Your task to perform on an android device: Go to notification settings Image 0: 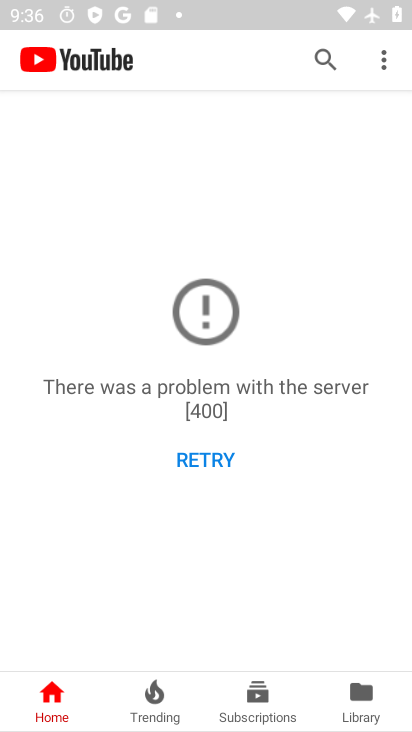
Step 0: press home button
Your task to perform on an android device: Go to notification settings Image 1: 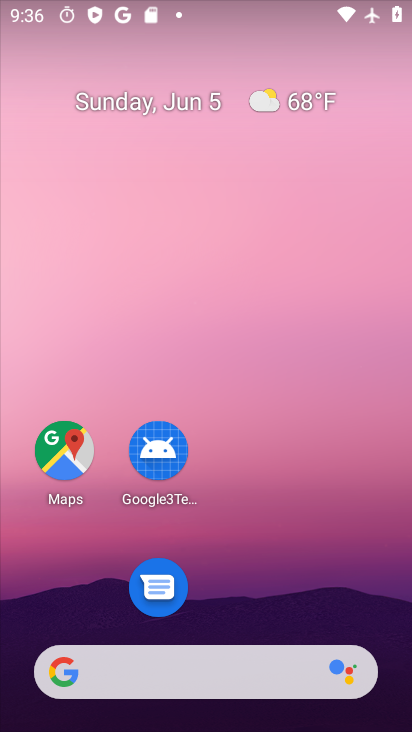
Step 1: drag from (224, 613) to (215, 127)
Your task to perform on an android device: Go to notification settings Image 2: 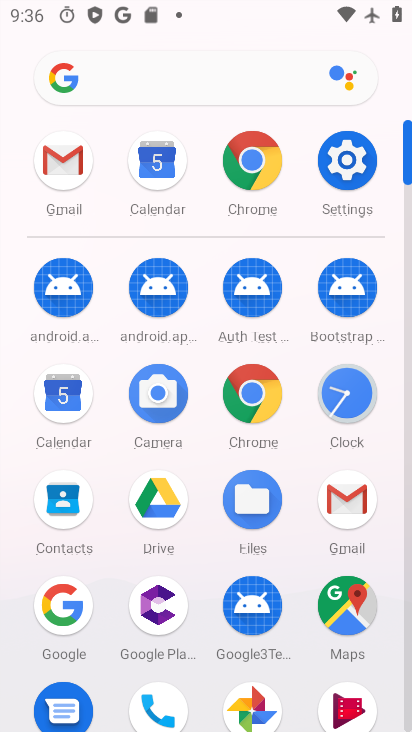
Step 2: click (334, 178)
Your task to perform on an android device: Go to notification settings Image 3: 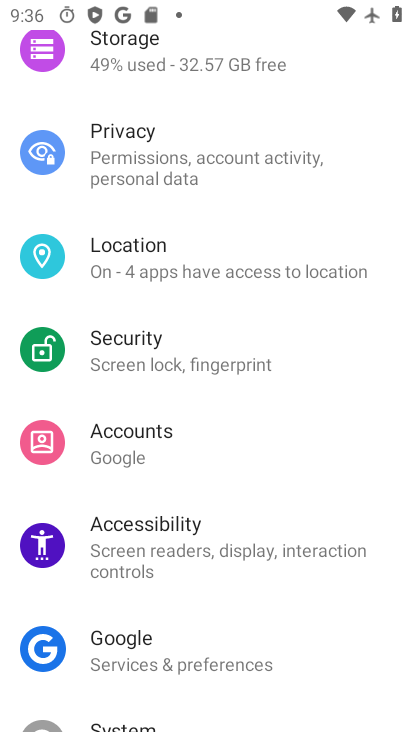
Step 3: drag from (152, 132) to (252, 553)
Your task to perform on an android device: Go to notification settings Image 4: 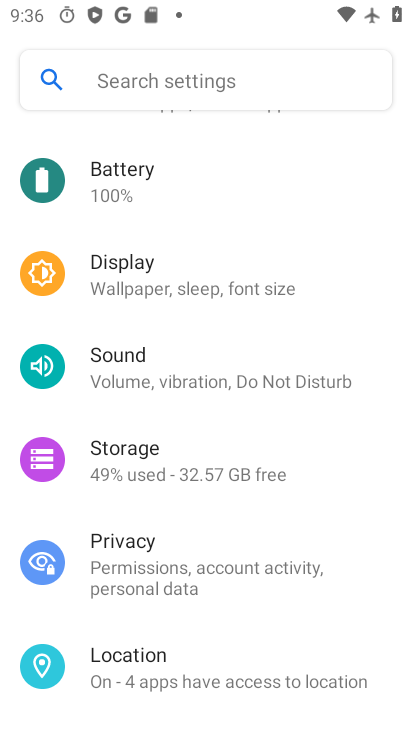
Step 4: drag from (167, 167) to (217, 507)
Your task to perform on an android device: Go to notification settings Image 5: 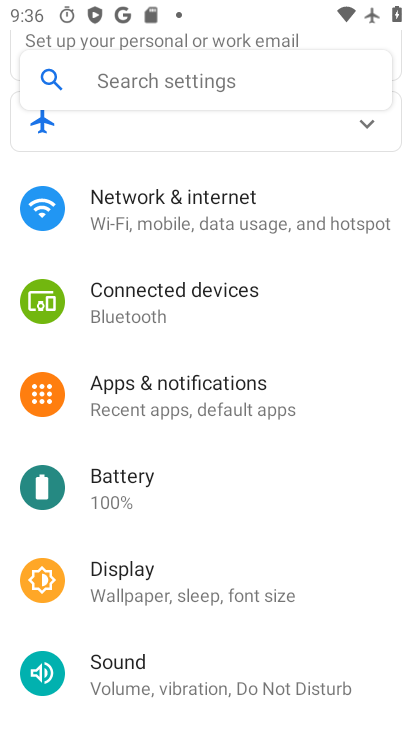
Step 5: click (181, 422)
Your task to perform on an android device: Go to notification settings Image 6: 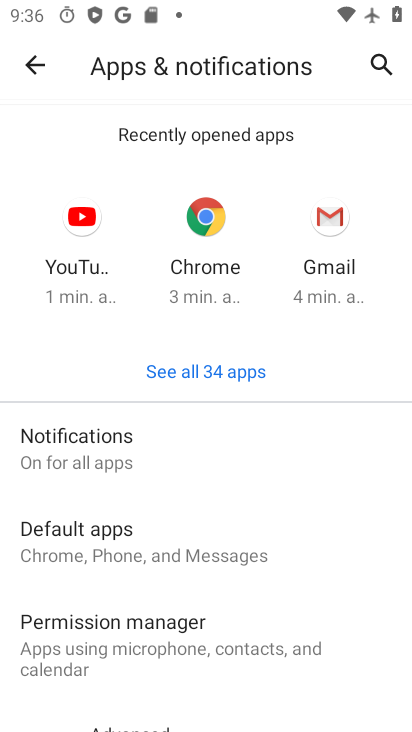
Step 6: click (129, 440)
Your task to perform on an android device: Go to notification settings Image 7: 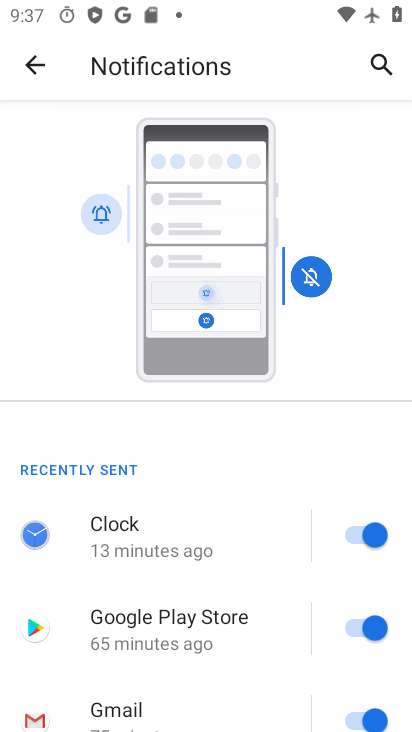
Step 7: drag from (295, 657) to (177, 361)
Your task to perform on an android device: Go to notification settings Image 8: 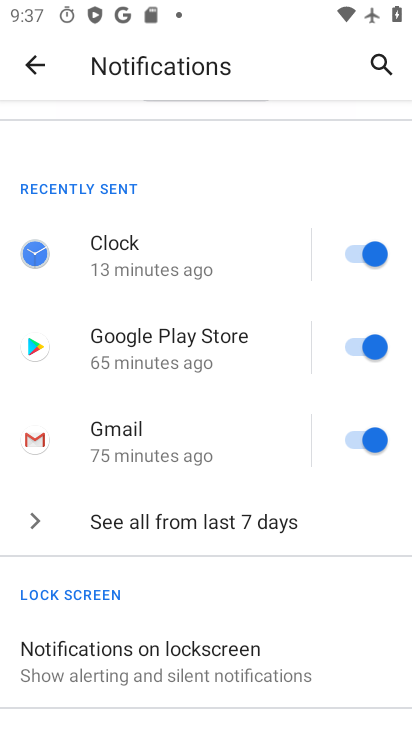
Step 8: drag from (211, 625) to (57, 227)
Your task to perform on an android device: Go to notification settings Image 9: 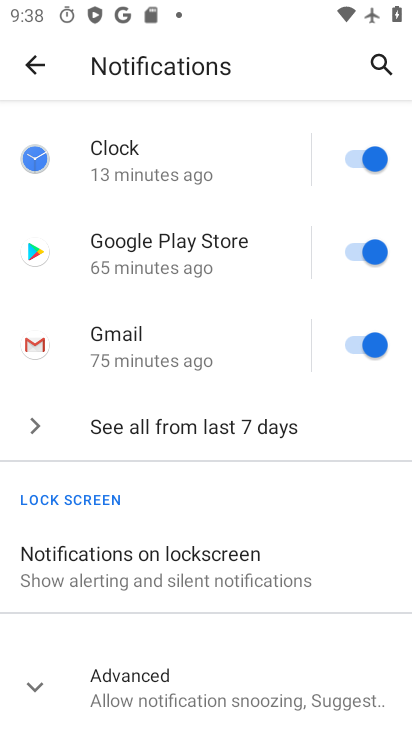
Step 9: click (216, 666)
Your task to perform on an android device: Go to notification settings Image 10: 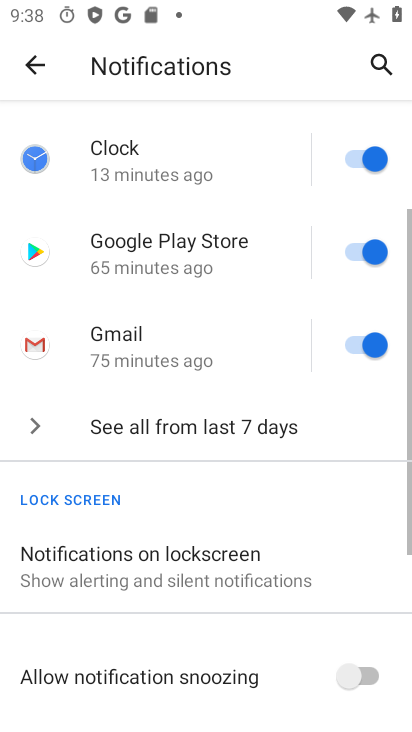
Step 10: task complete